Your task to perform on an android device: create a new album in the google photos Image 0: 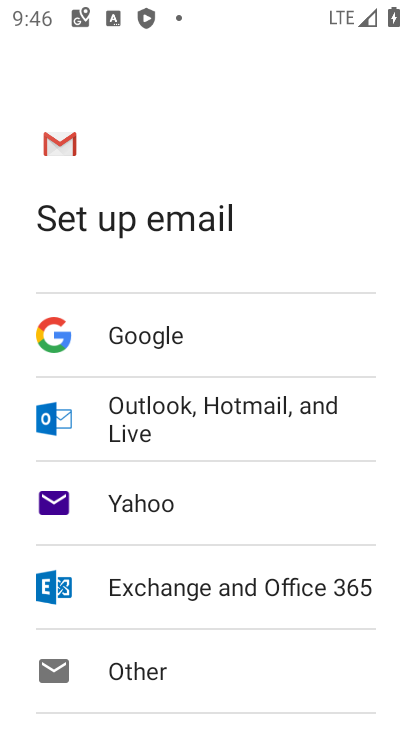
Step 0: press home button
Your task to perform on an android device: create a new album in the google photos Image 1: 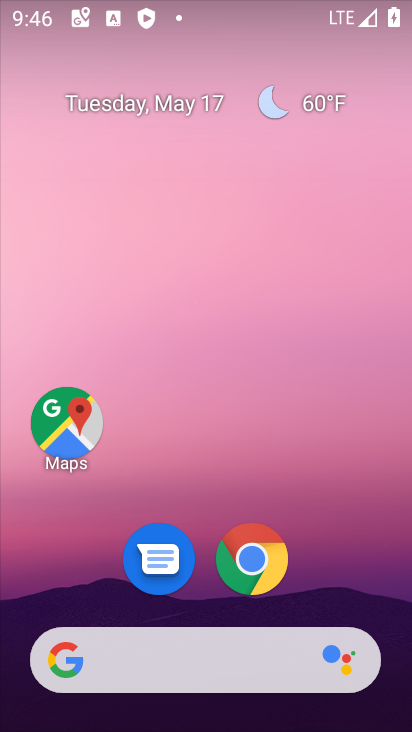
Step 1: drag from (199, 611) to (249, 266)
Your task to perform on an android device: create a new album in the google photos Image 2: 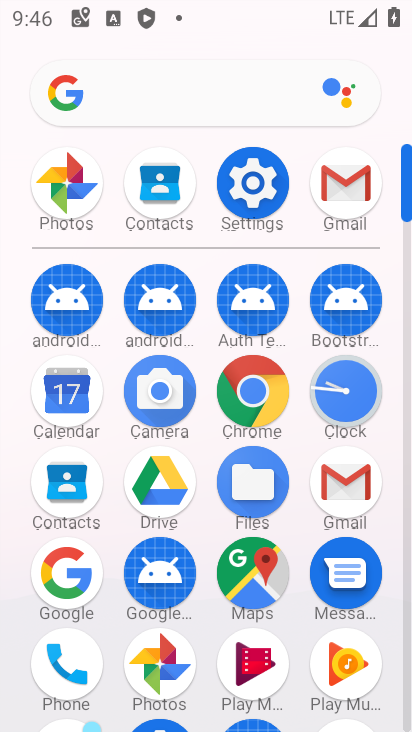
Step 2: click (77, 220)
Your task to perform on an android device: create a new album in the google photos Image 3: 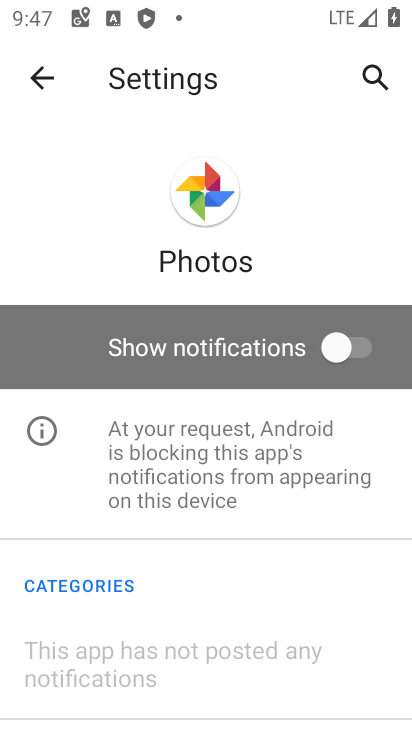
Step 3: click (45, 70)
Your task to perform on an android device: create a new album in the google photos Image 4: 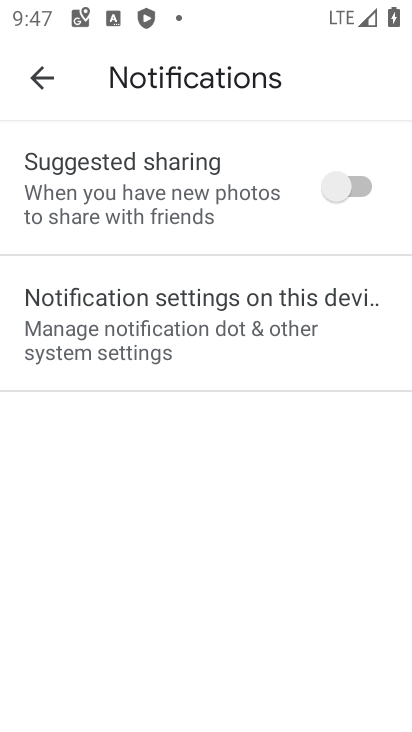
Step 4: click (48, 81)
Your task to perform on an android device: create a new album in the google photos Image 5: 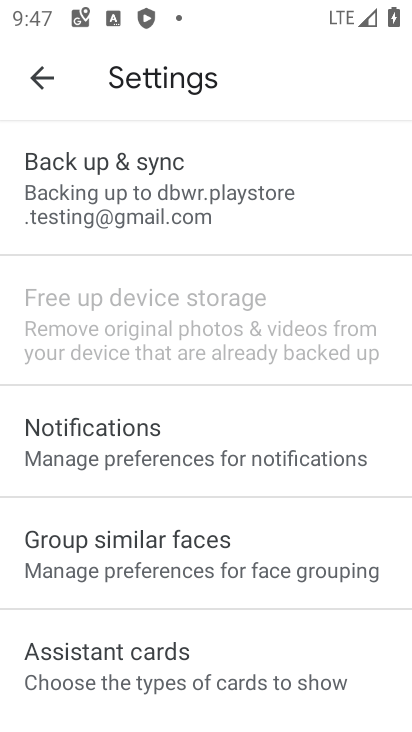
Step 5: click (28, 83)
Your task to perform on an android device: create a new album in the google photos Image 6: 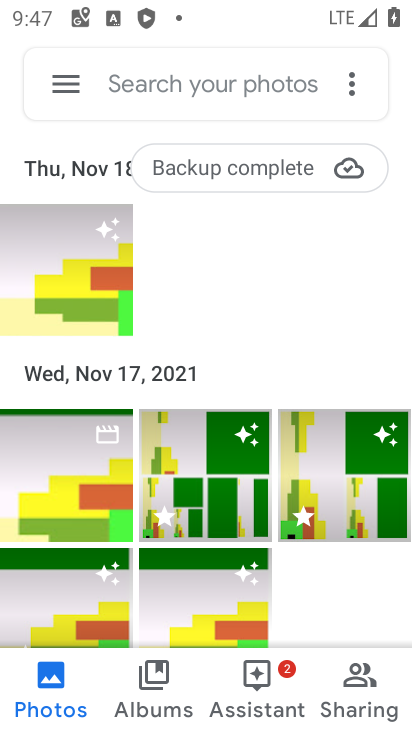
Step 6: click (346, 76)
Your task to perform on an android device: create a new album in the google photos Image 7: 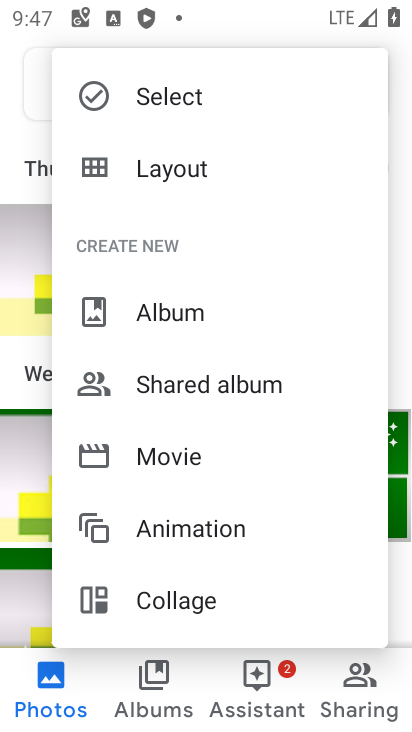
Step 7: click (151, 303)
Your task to perform on an android device: create a new album in the google photos Image 8: 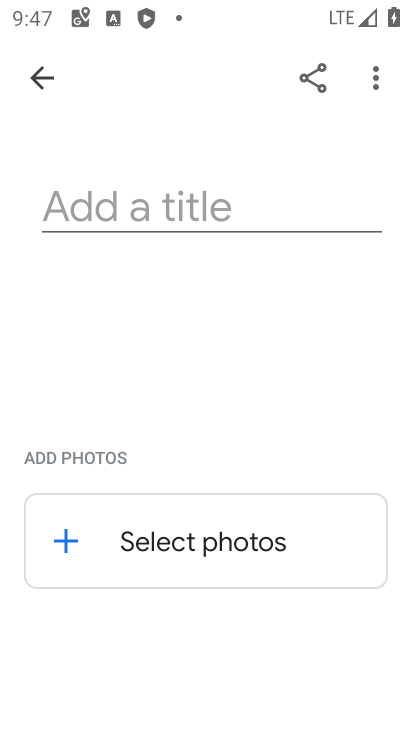
Step 8: click (192, 216)
Your task to perform on an android device: create a new album in the google photos Image 9: 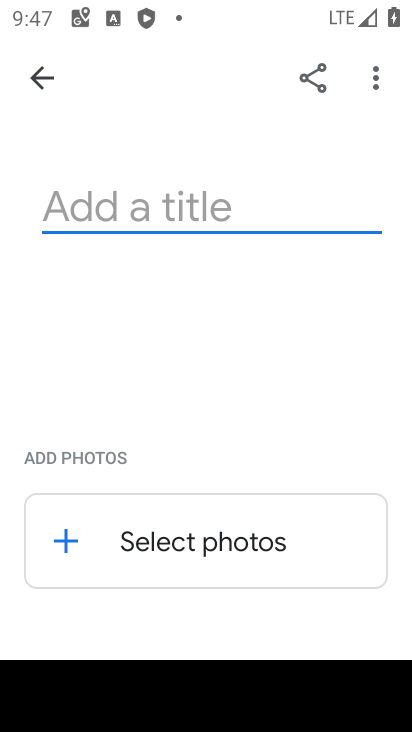
Step 9: type "fhf"
Your task to perform on an android device: create a new album in the google photos Image 10: 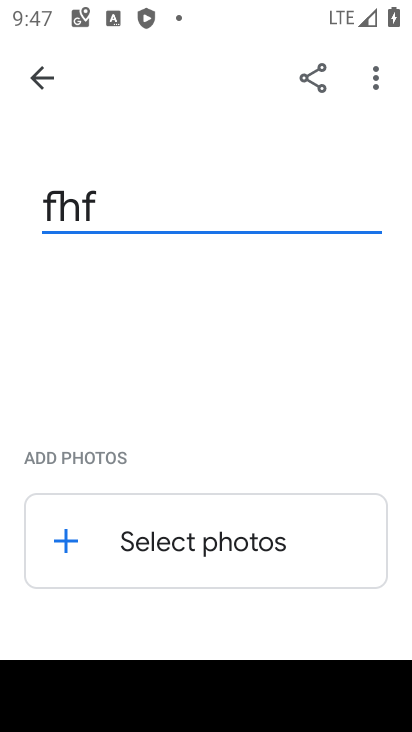
Step 10: click (66, 541)
Your task to perform on an android device: create a new album in the google photos Image 11: 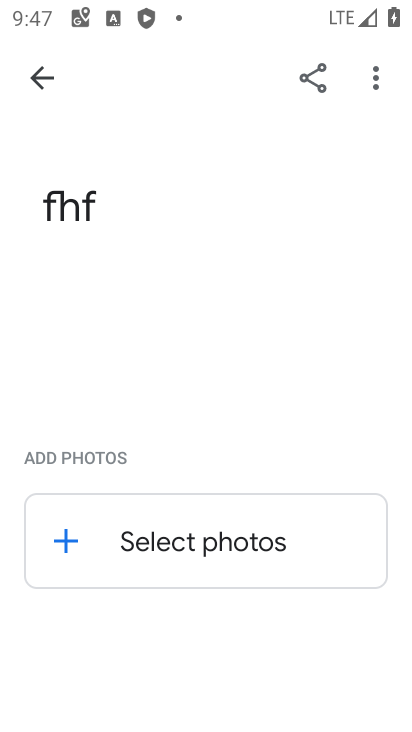
Step 11: click (66, 541)
Your task to perform on an android device: create a new album in the google photos Image 12: 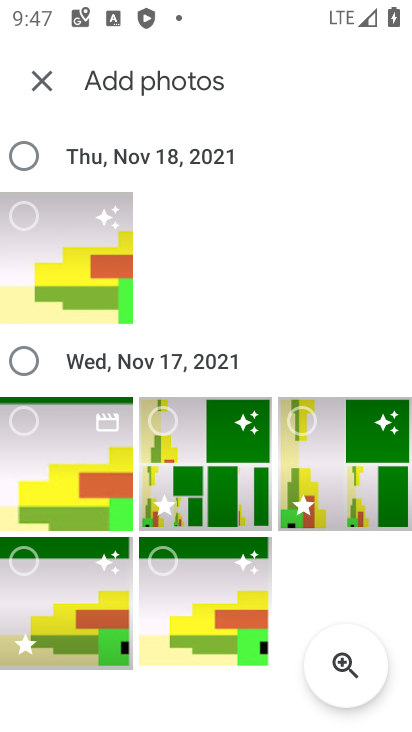
Step 12: click (41, 432)
Your task to perform on an android device: create a new album in the google photos Image 13: 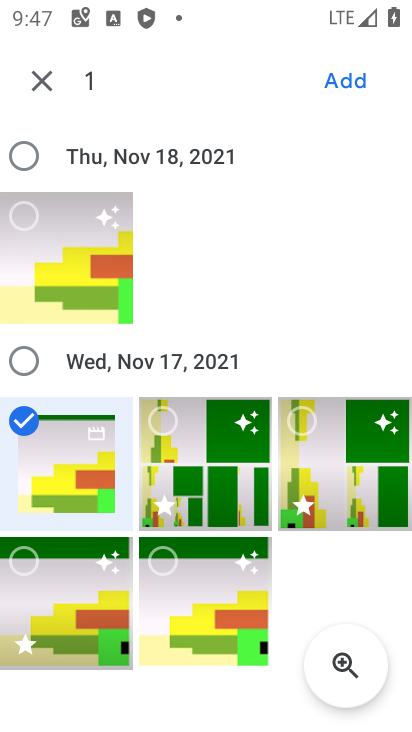
Step 13: click (22, 231)
Your task to perform on an android device: create a new album in the google photos Image 14: 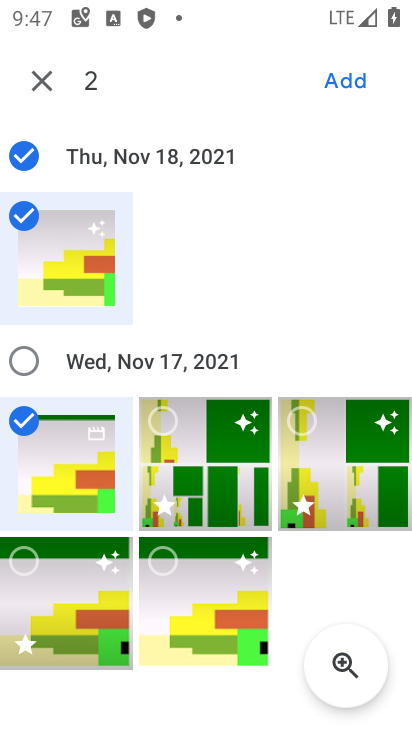
Step 14: click (340, 91)
Your task to perform on an android device: create a new album in the google photos Image 15: 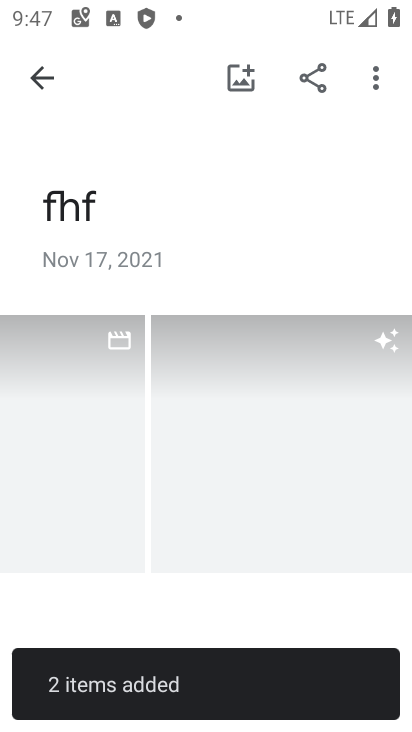
Step 15: task complete